Your task to perform on an android device: Go to CNN.com Image 0: 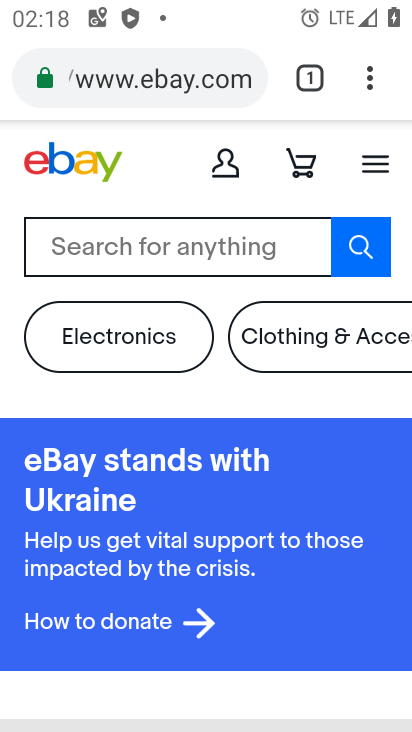
Step 0: click (220, 86)
Your task to perform on an android device: Go to CNN.com Image 1: 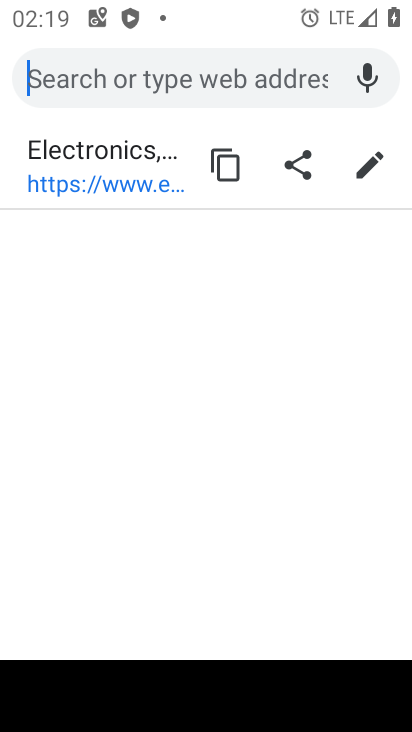
Step 1: type "CNN.com"
Your task to perform on an android device: Go to CNN.com Image 2: 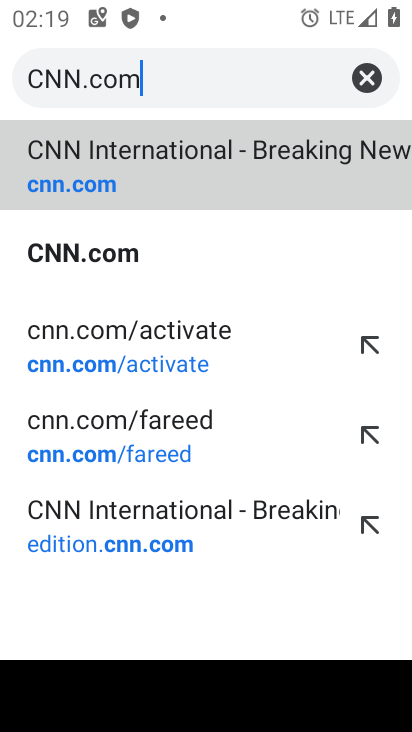
Step 2: click (329, 159)
Your task to perform on an android device: Go to CNN.com Image 3: 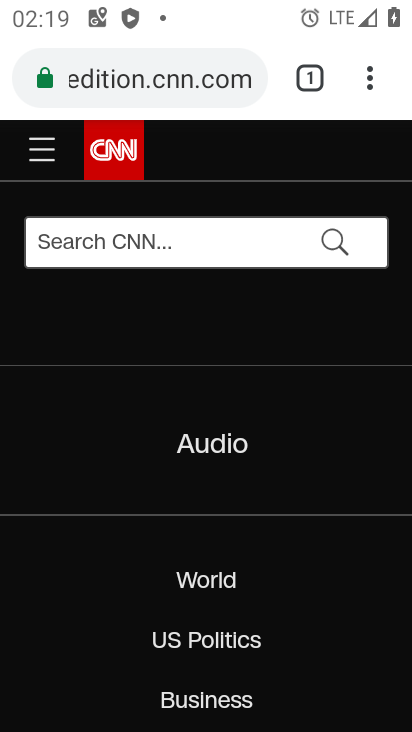
Step 3: task complete